Your task to perform on an android device: open device folders in google photos Image 0: 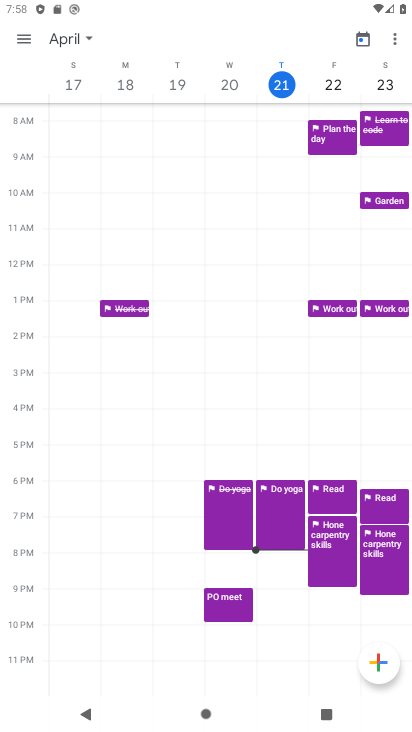
Step 0: press home button
Your task to perform on an android device: open device folders in google photos Image 1: 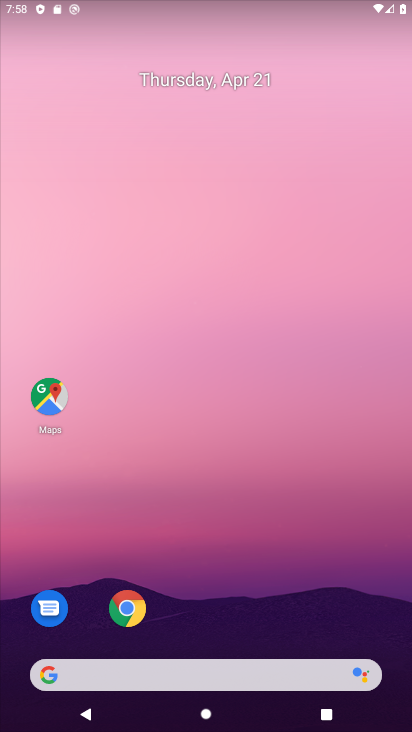
Step 1: drag from (222, 624) to (234, 75)
Your task to perform on an android device: open device folders in google photos Image 2: 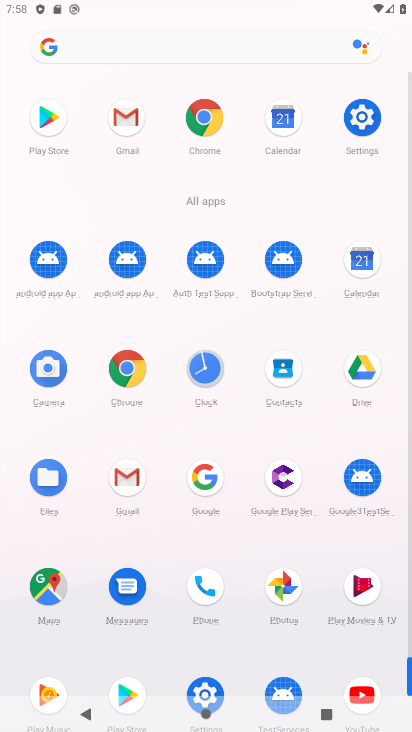
Step 2: click (283, 611)
Your task to perform on an android device: open device folders in google photos Image 3: 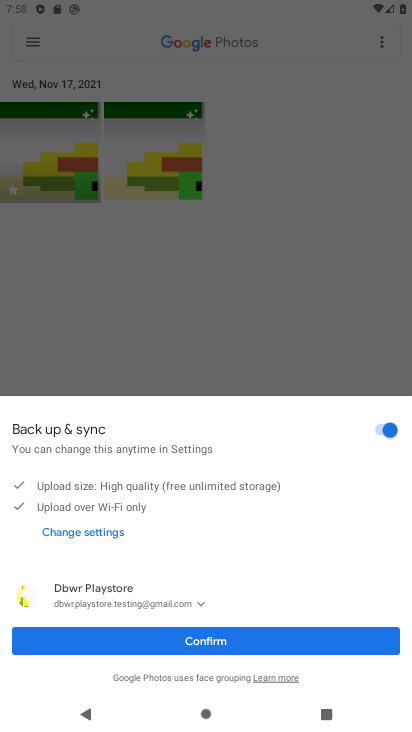
Step 3: click (234, 645)
Your task to perform on an android device: open device folders in google photos Image 4: 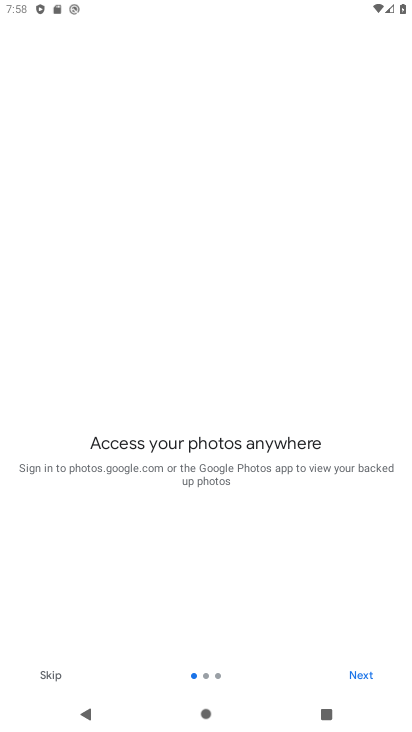
Step 4: click (40, 668)
Your task to perform on an android device: open device folders in google photos Image 5: 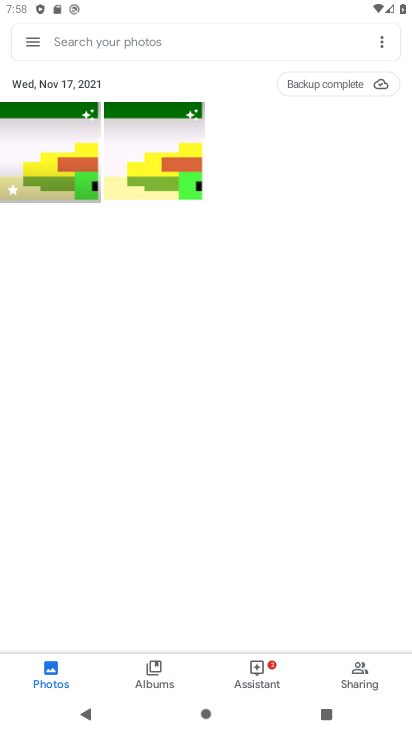
Step 5: click (27, 32)
Your task to perform on an android device: open device folders in google photos Image 6: 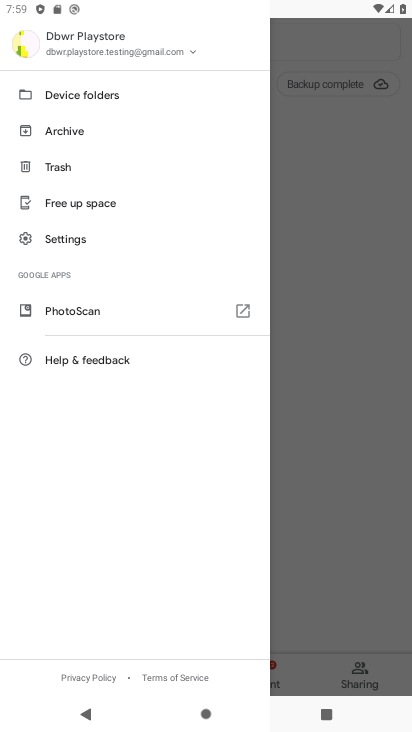
Step 6: click (93, 95)
Your task to perform on an android device: open device folders in google photos Image 7: 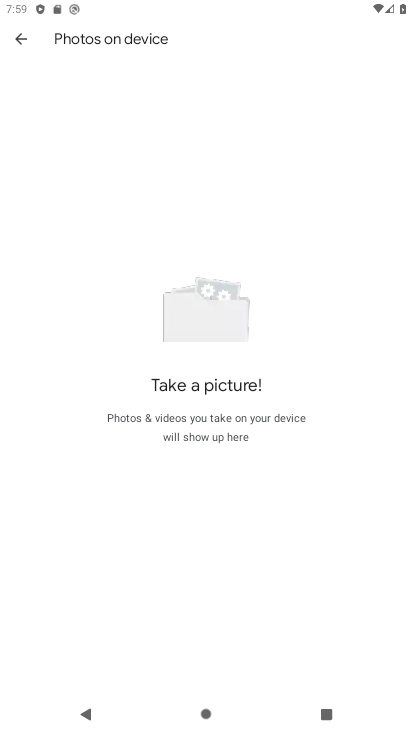
Step 7: task complete